Your task to perform on an android device: Open calendar and show me the third week of next month Image 0: 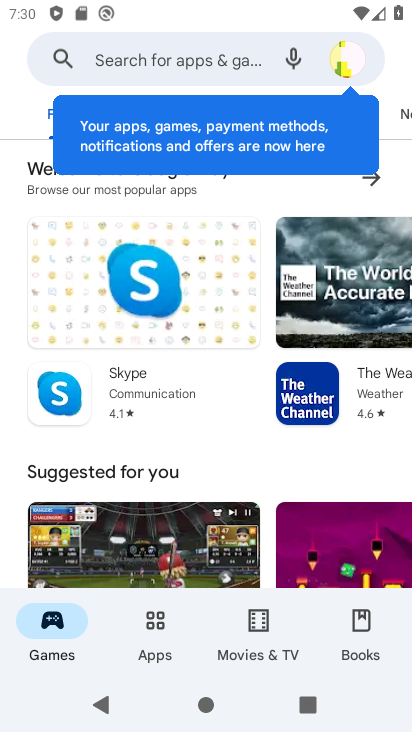
Step 0: press home button
Your task to perform on an android device: Open calendar and show me the third week of next month Image 1: 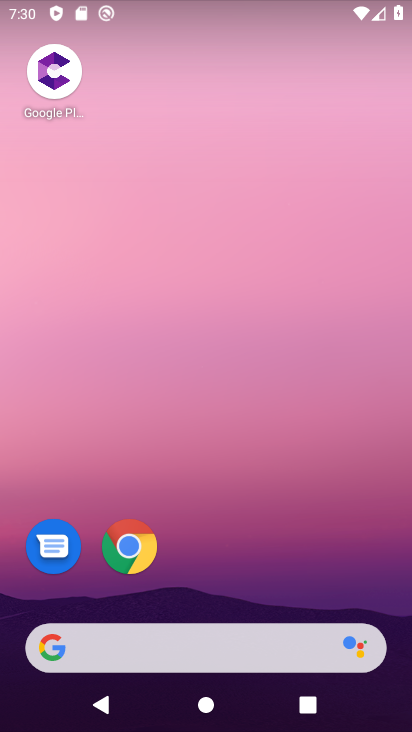
Step 1: drag from (232, 545) to (256, 26)
Your task to perform on an android device: Open calendar and show me the third week of next month Image 2: 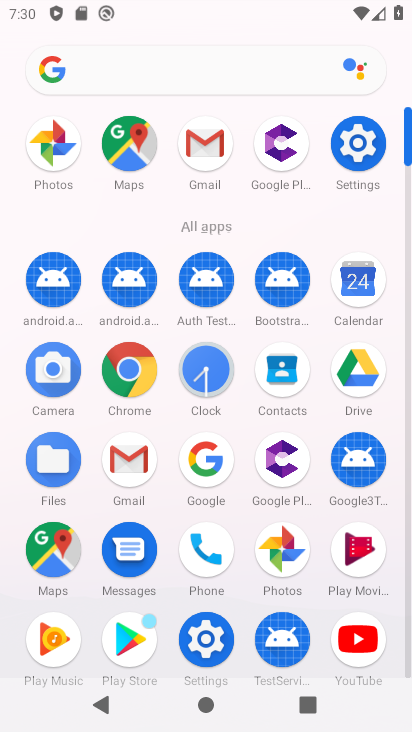
Step 2: click (355, 279)
Your task to perform on an android device: Open calendar and show me the third week of next month Image 3: 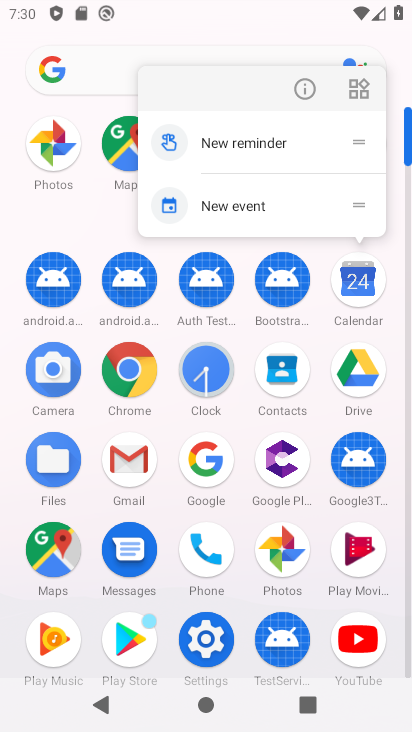
Step 3: click (355, 277)
Your task to perform on an android device: Open calendar and show me the third week of next month Image 4: 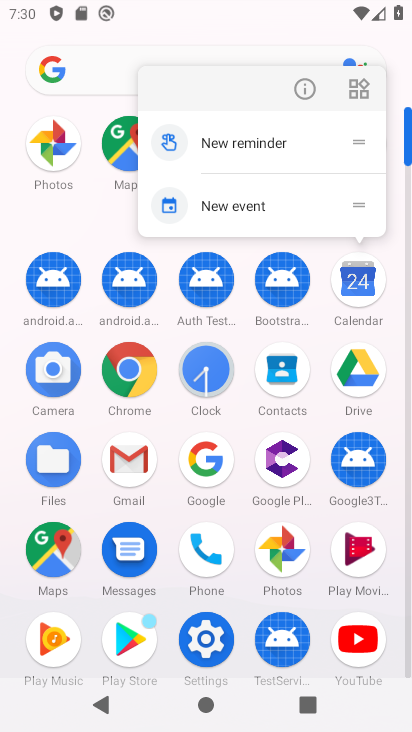
Step 4: click (355, 277)
Your task to perform on an android device: Open calendar and show me the third week of next month Image 5: 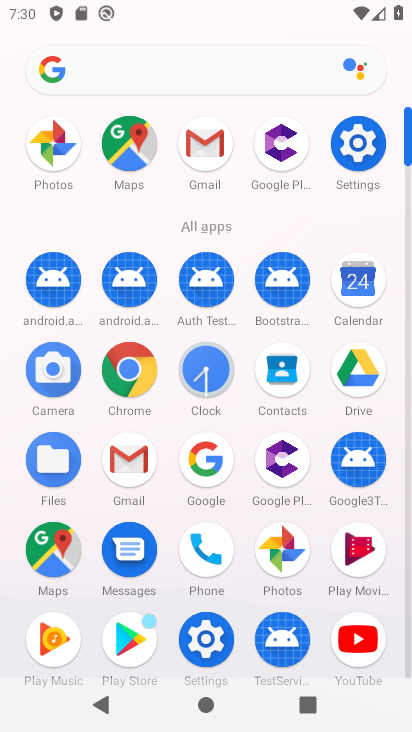
Step 5: click (364, 283)
Your task to perform on an android device: Open calendar and show me the third week of next month Image 6: 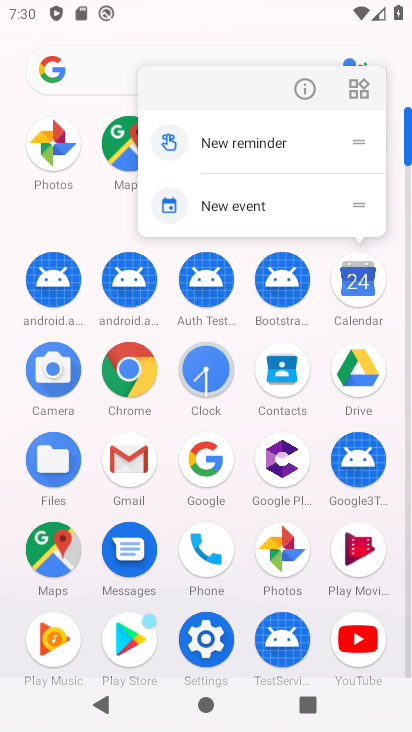
Step 6: click (365, 283)
Your task to perform on an android device: Open calendar and show me the third week of next month Image 7: 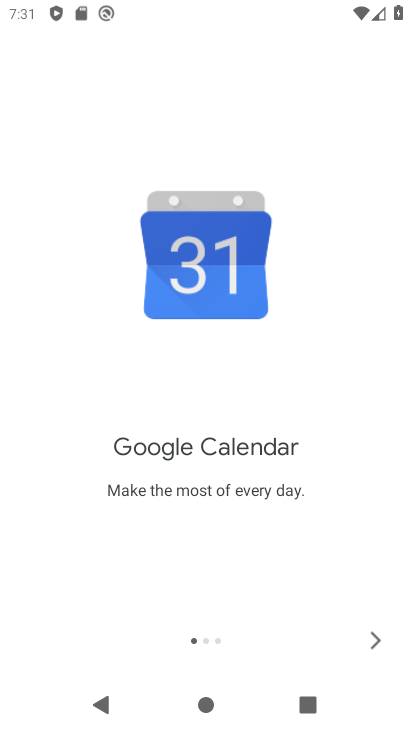
Step 7: click (372, 640)
Your task to perform on an android device: Open calendar and show me the third week of next month Image 8: 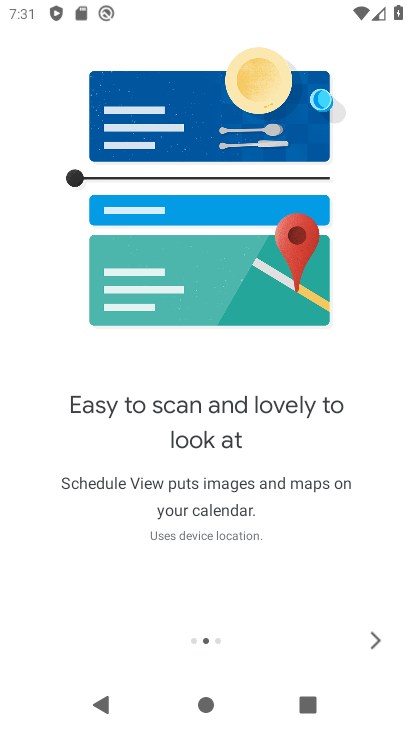
Step 8: click (372, 640)
Your task to perform on an android device: Open calendar and show me the third week of next month Image 9: 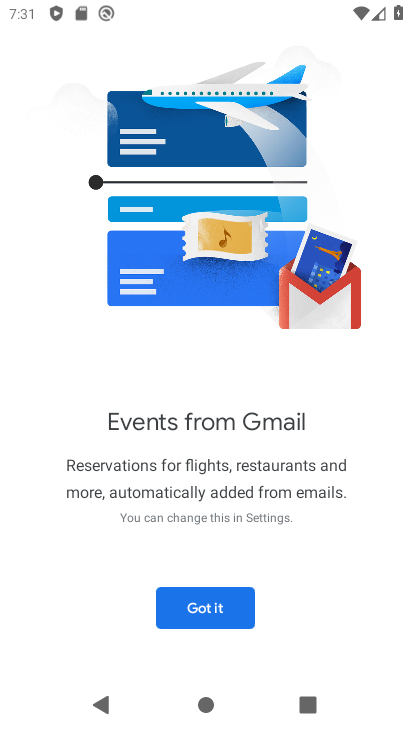
Step 9: click (242, 612)
Your task to perform on an android device: Open calendar and show me the third week of next month Image 10: 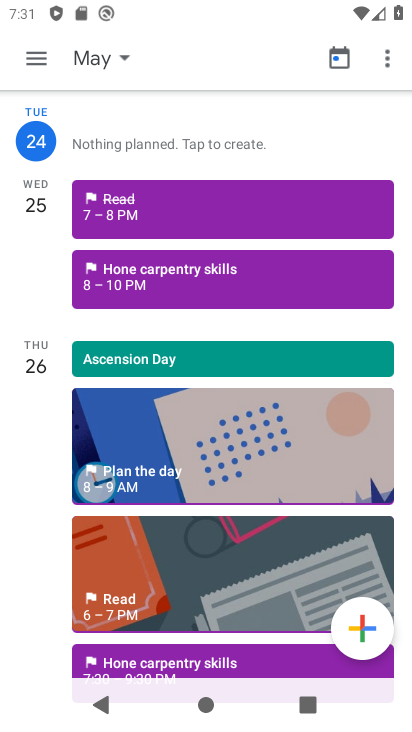
Step 10: click (38, 53)
Your task to perform on an android device: Open calendar and show me the third week of next month Image 11: 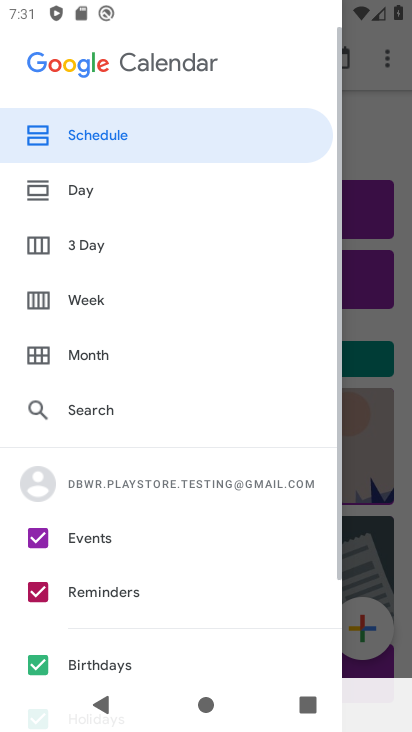
Step 11: click (33, 343)
Your task to perform on an android device: Open calendar and show me the third week of next month Image 12: 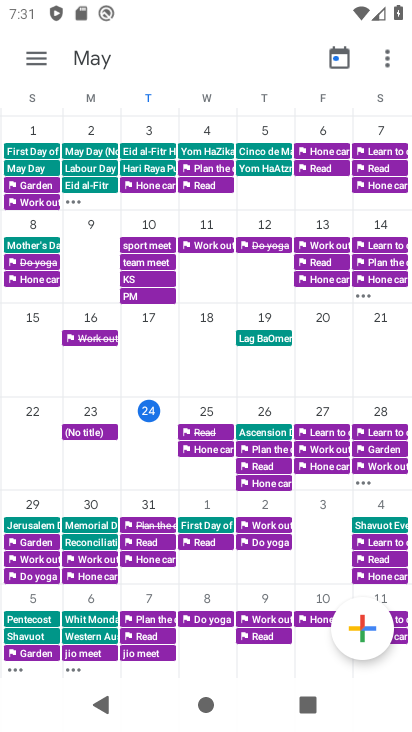
Step 12: drag from (364, 348) to (0, 321)
Your task to perform on an android device: Open calendar and show me the third week of next month Image 13: 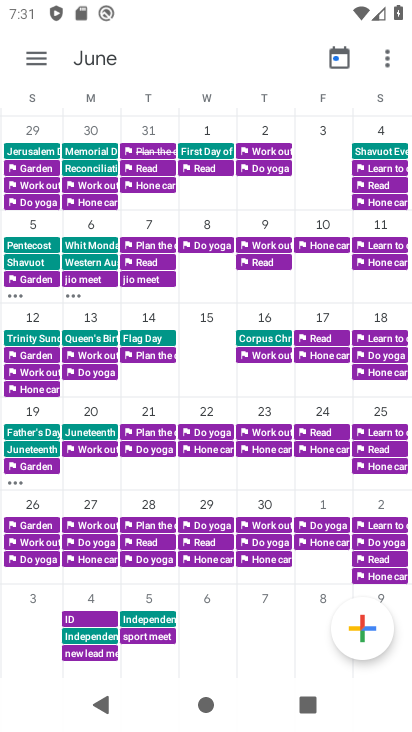
Step 13: click (41, 409)
Your task to perform on an android device: Open calendar and show me the third week of next month Image 14: 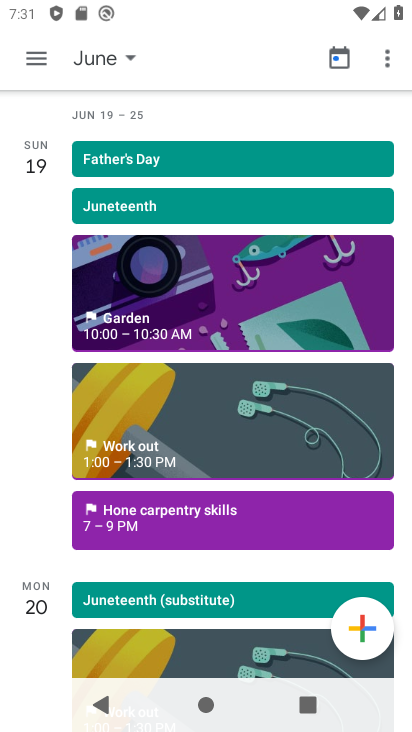
Step 14: click (43, 61)
Your task to perform on an android device: Open calendar and show me the third week of next month Image 15: 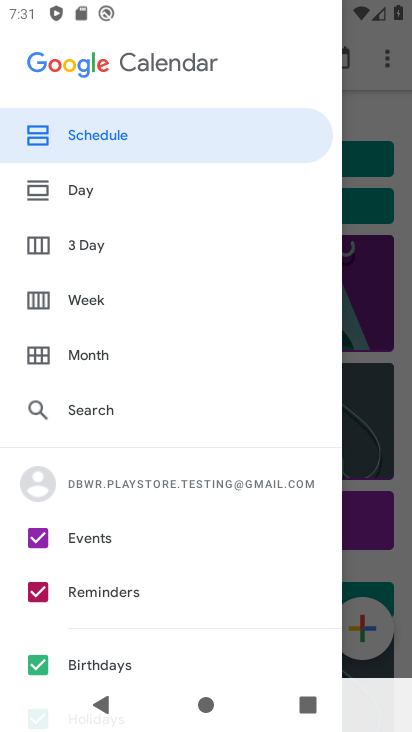
Step 15: click (80, 297)
Your task to perform on an android device: Open calendar and show me the third week of next month Image 16: 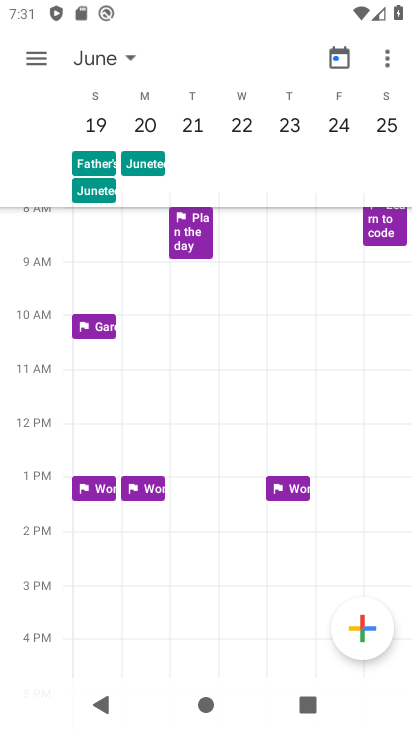
Step 16: task complete